Your task to perform on an android device: Open calendar and show me the fourth week of next month Image 0: 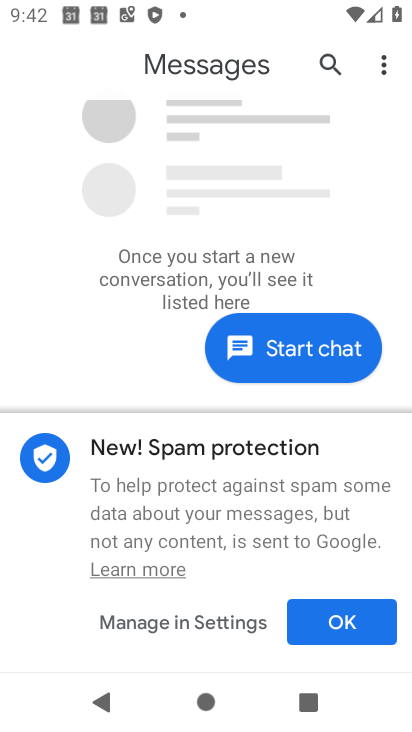
Step 0: press home button
Your task to perform on an android device: Open calendar and show me the fourth week of next month Image 1: 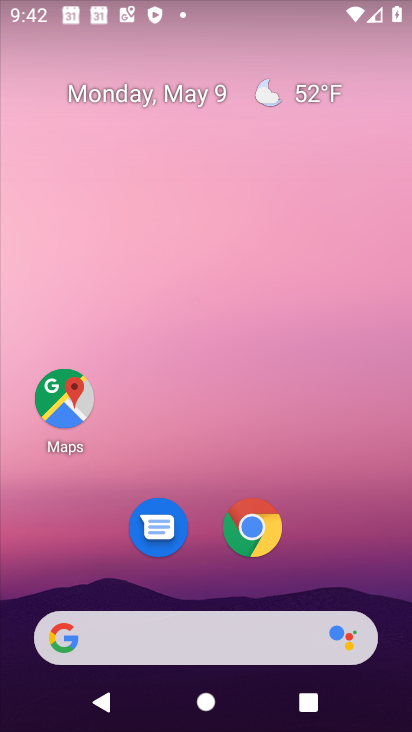
Step 1: drag from (205, 561) to (149, 25)
Your task to perform on an android device: Open calendar and show me the fourth week of next month Image 2: 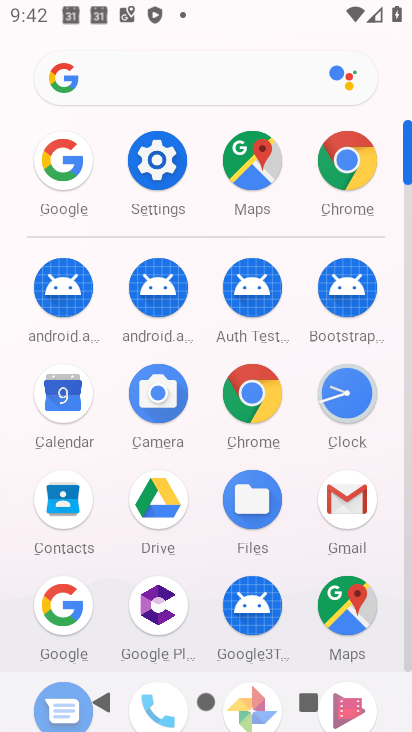
Step 2: click (68, 396)
Your task to perform on an android device: Open calendar and show me the fourth week of next month Image 3: 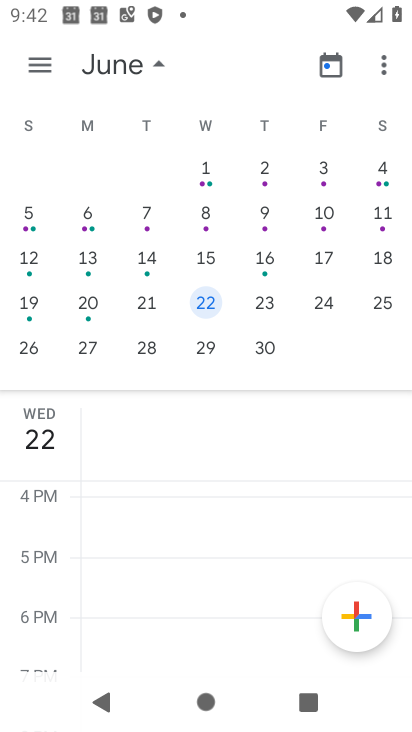
Step 3: drag from (379, 360) to (272, 363)
Your task to perform on an android device: Open calendar and show me the fourth week of next month Image 4: 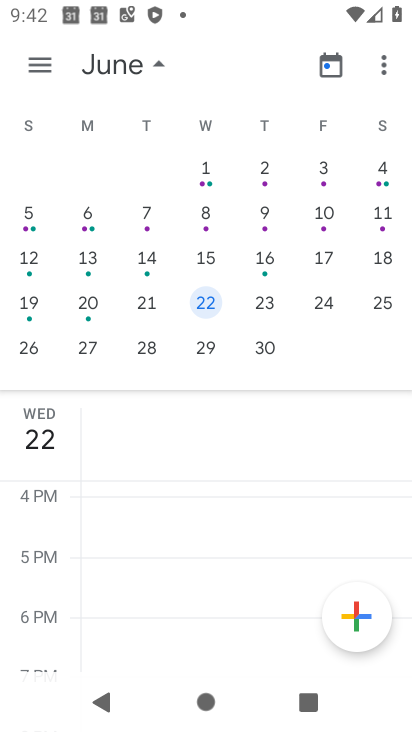
Step 4: click (267, 302)
Your task to perform on an android device: Open calendar and show me the fourth week of next month Image 5: 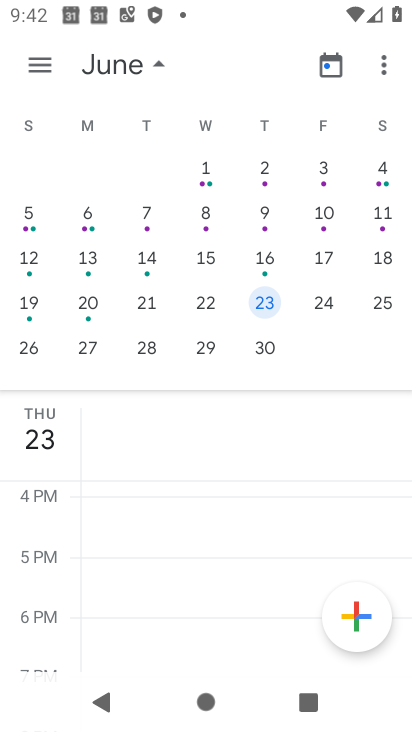
Step 5: task complete